Your task to perform on an android device: Open calendar and show me the first week of next month Image 0: 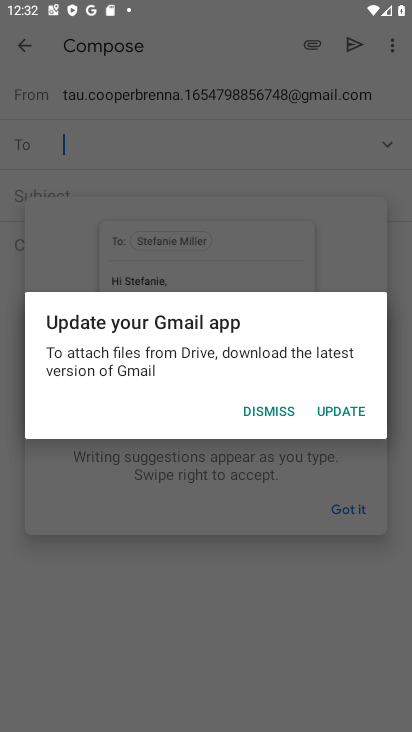
Step 0: press home button
Your task to perform on an android device: Open calendar and show me the first week of next month Image 1: 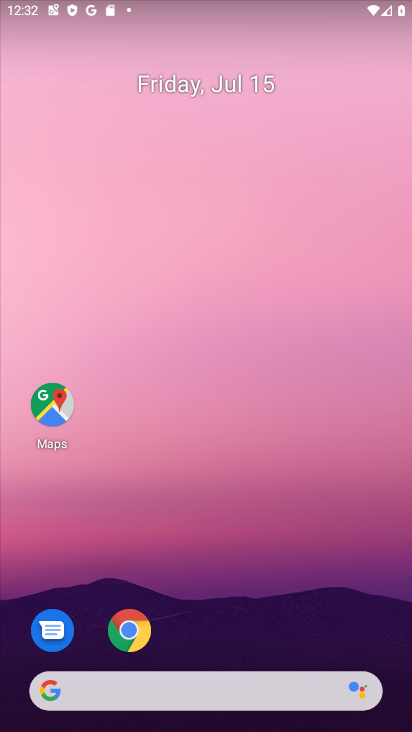
Step 1: drag from (263, 609) to (234, 68)
Your task to perform on an android device: Open calendar and show me the first week of next month Image 2: 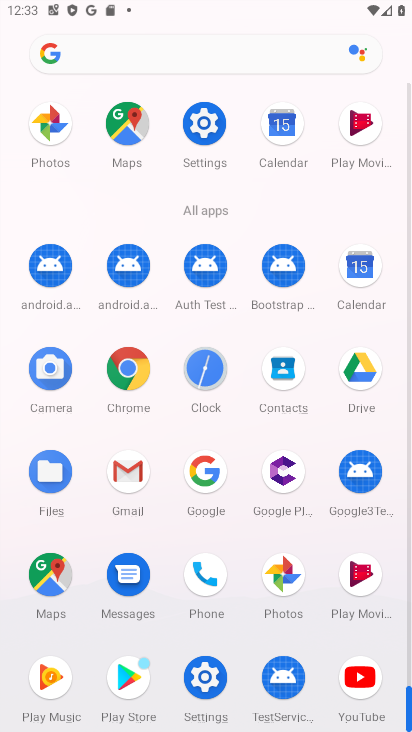
Step 2: click (350, 277)
Your task to perform on an android device: Open calendar and show me the first week of next month Image 3: 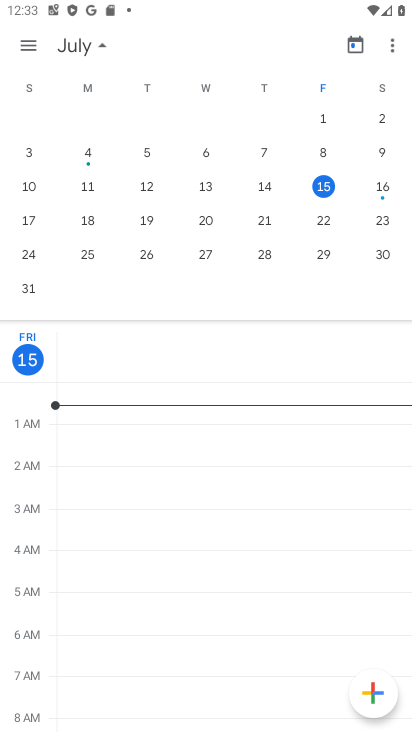
Step 3: click (23, 40)
Your task to perform on an android device: Open calendar and show me the first week of next month Image 4: 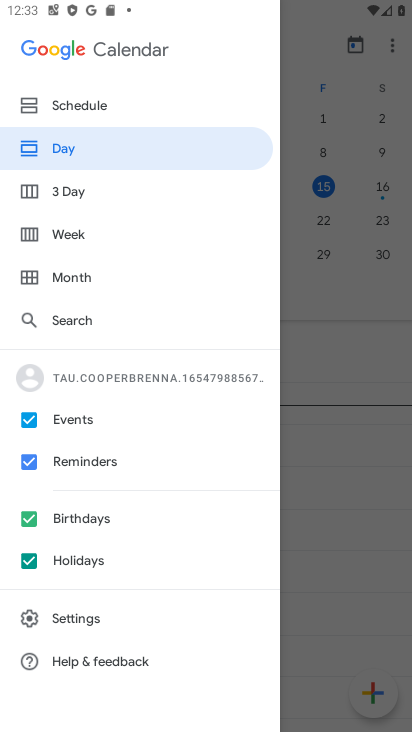
Step 4: click (112, 229)
Your task to perform on an android device: Open calendar and show me the first week of next month Image 5: 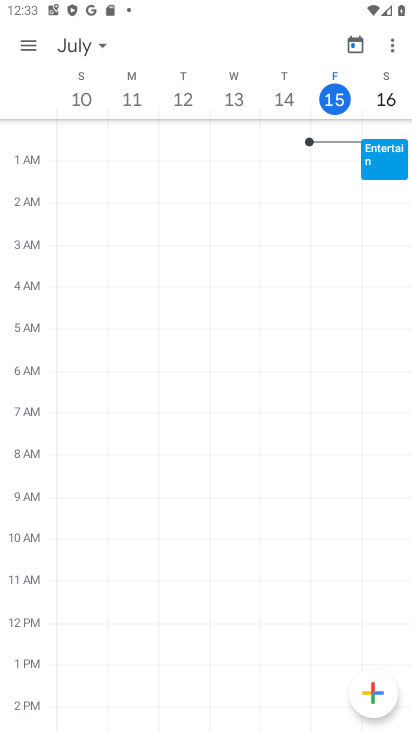
Step 5: click (99, 44)
Your task to perform on an android device: Open calendar and show me the first week of next month Image 6: 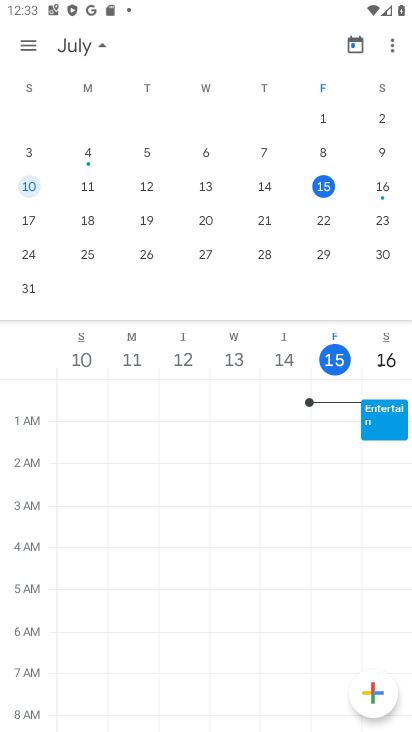
Step 6: drag from (327, 213) to (3, 200)
Your task to perform on an android device: Open calendar and show me the first week of next month Image 7: 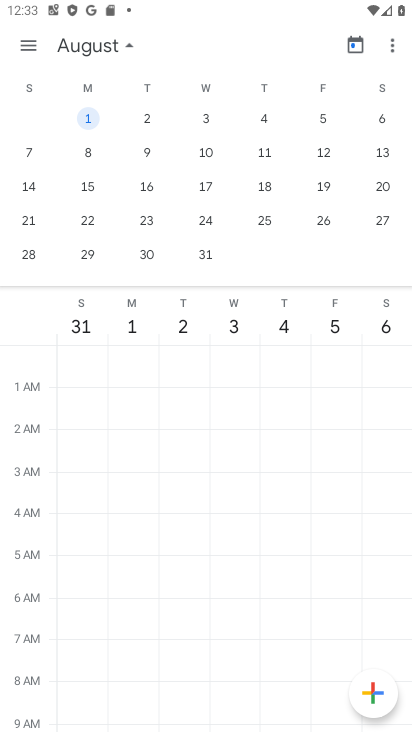
Step 7: click (205, 120)
Your task to perform on an android device: Open calendar and show me the first week of next month Image 8: 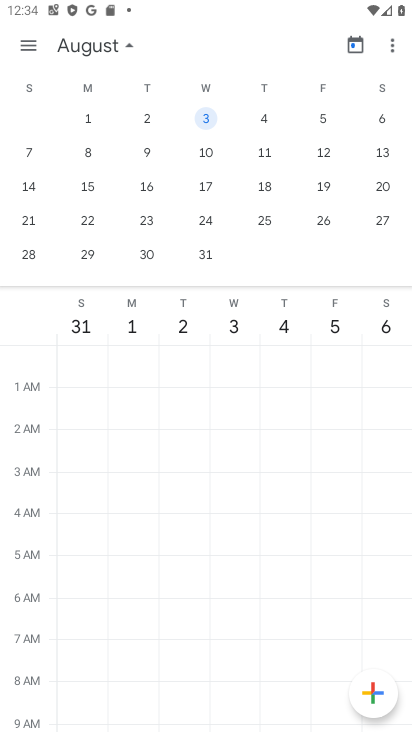
Step 8: task complete